Your task to perform on an android device: see tabs open on other devices in the chrome app Image 0: 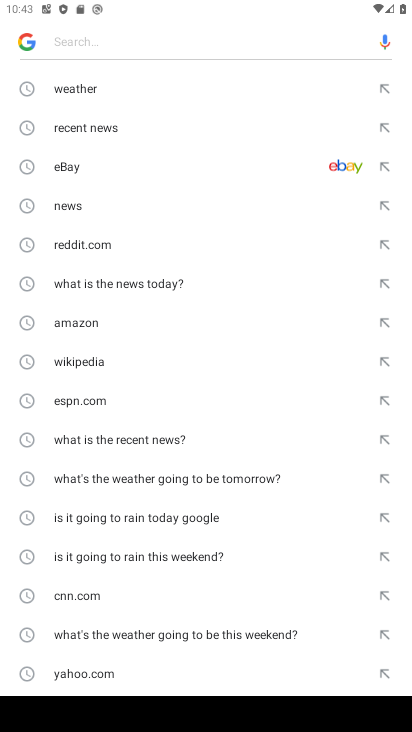
Step 0: press home button
Your task to perform on an android device: see tabs open on other devices in the chrome app Image 1: 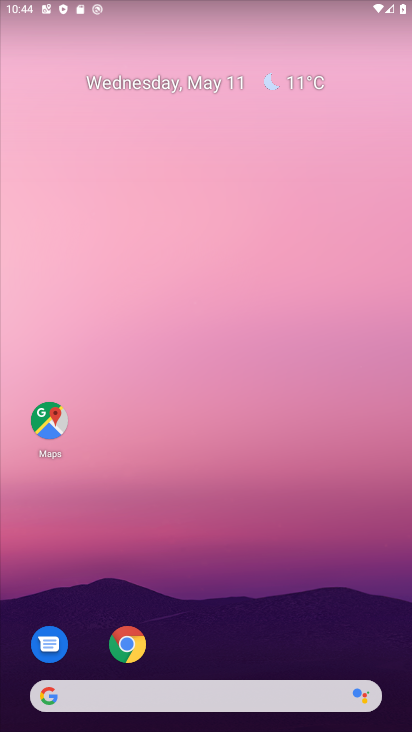
Step 1: click (136, 650)
Your task to perform on an android device: see tabs open on other devices in the chrome app Image 2: 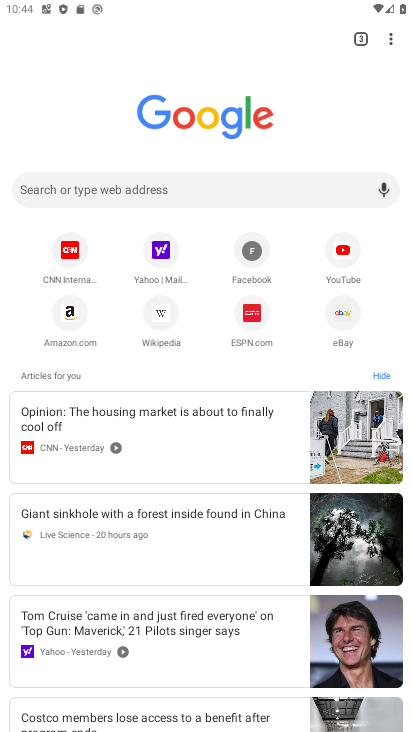
Step 2: click (391, 40)
Your task to perform on an android device: see tabs open on other devices in the chrome app Image 3: 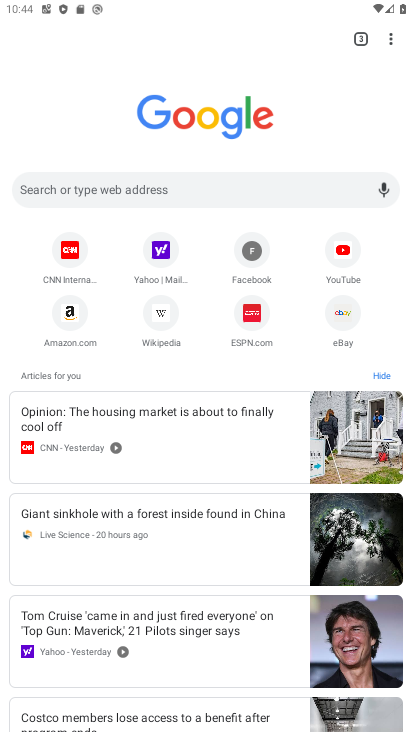
Step 3: click (393, 37)
Your task to perform on an android device: see tabs open on other devices in the chrome app Image 4: 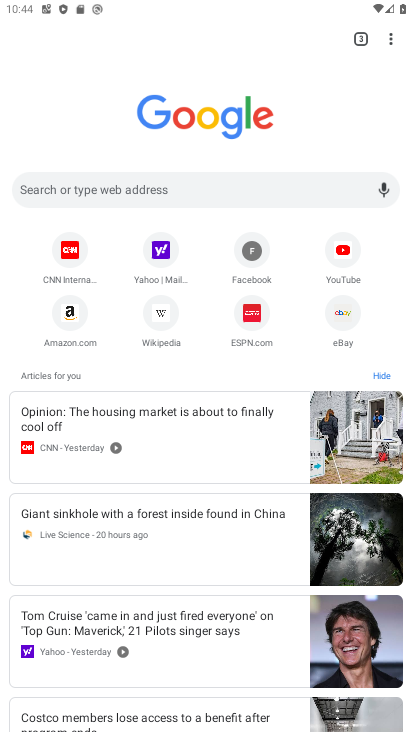
Step 4: drag from (388, 42) to (243, 182)
Your task to perform on an android device: see tabs open on other devices in the chrome app Image 5: 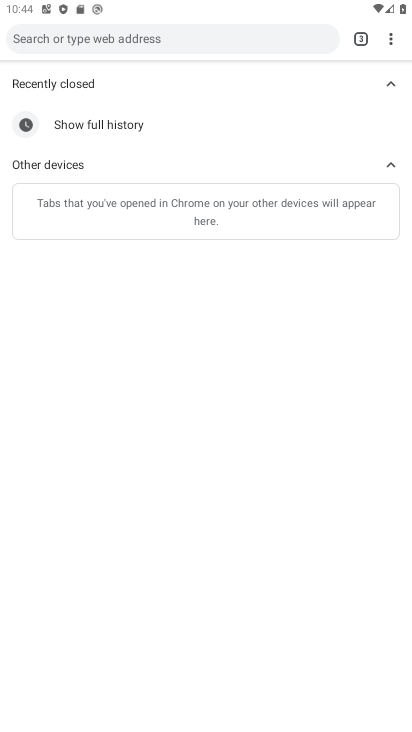
Step 5: click (221, 221)
Your task to perform on an android device: see tabs open on other devices in the chrome app Image 6: 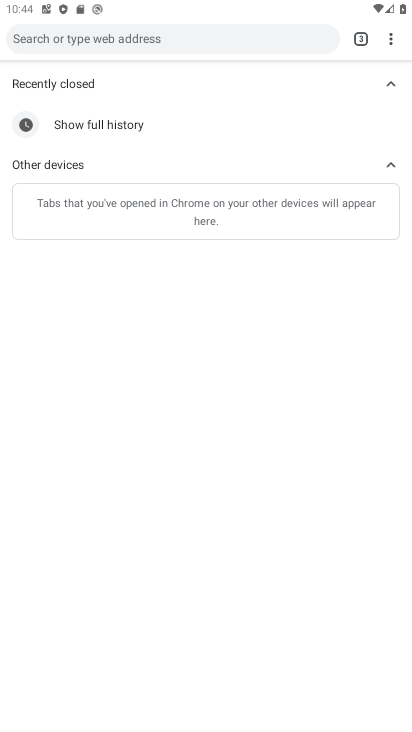
Step 6: task complete